Your task to perform on an android device: Search for sushi restaurants on Maps Image 0: 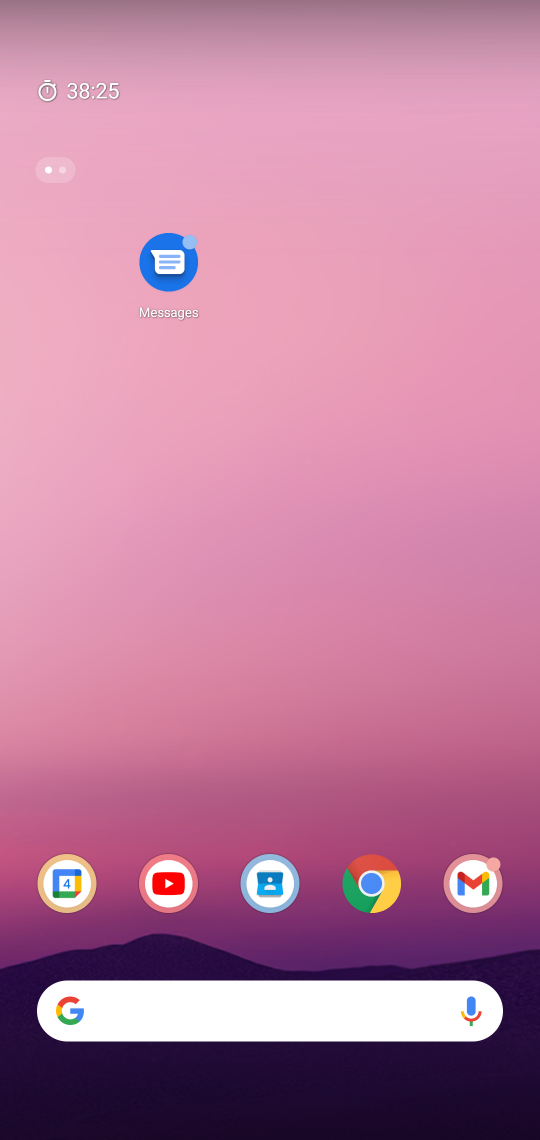
Step 0: drag from (300, 965) to (300, 39)
Your task to perform on an android device: Search for sushi restaurants on Maps Image 1: 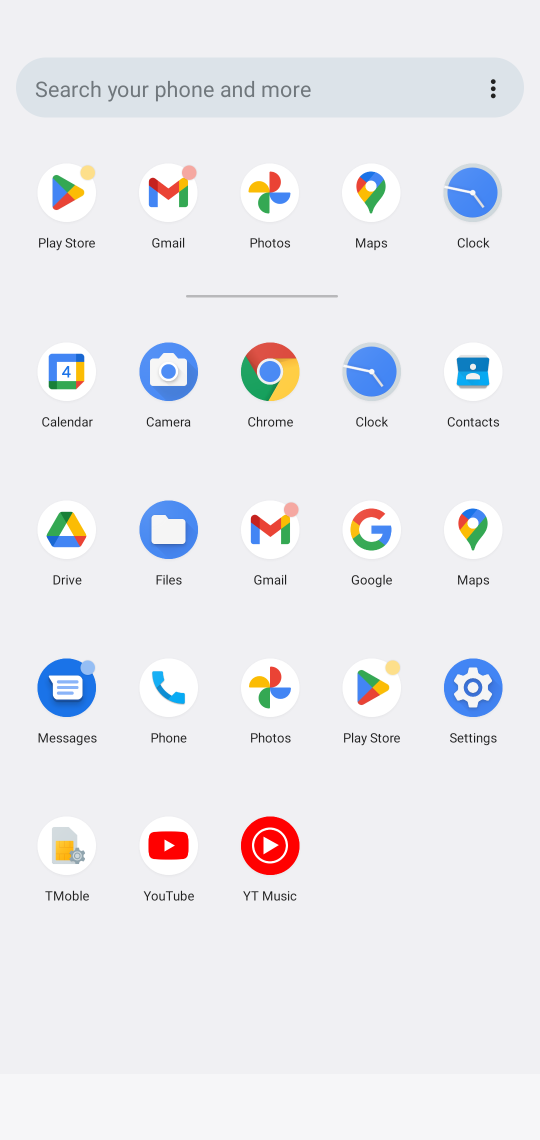
Step 1: click (470, 531)
Your task to perform on an android device: Search for sushi restaurants on Maps Image 2: 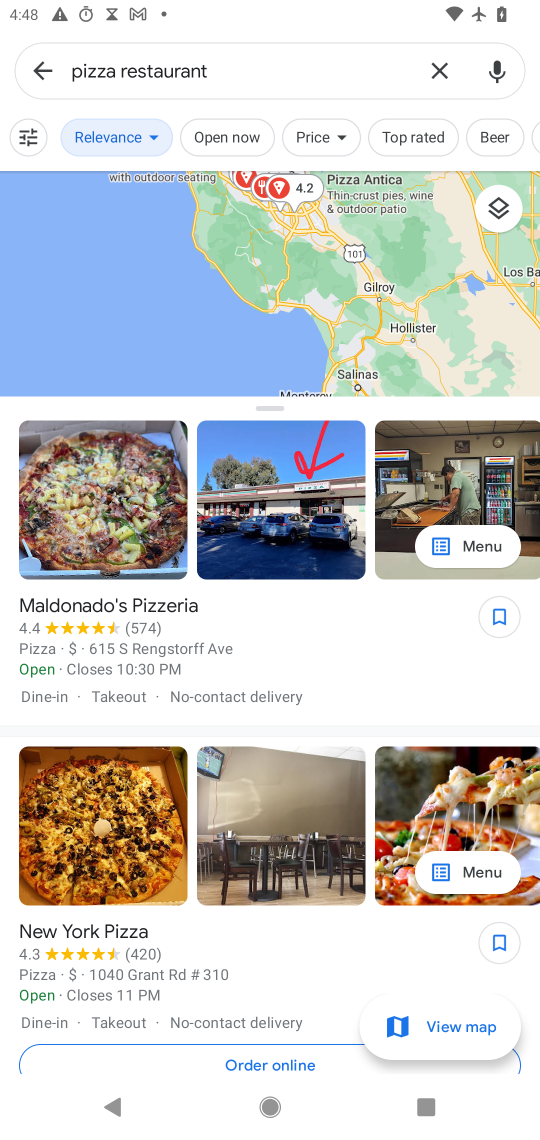
Step 2: click (439, 70)
Your task to perform on an android device: Search for sushi restaurants on Maps Image 3: 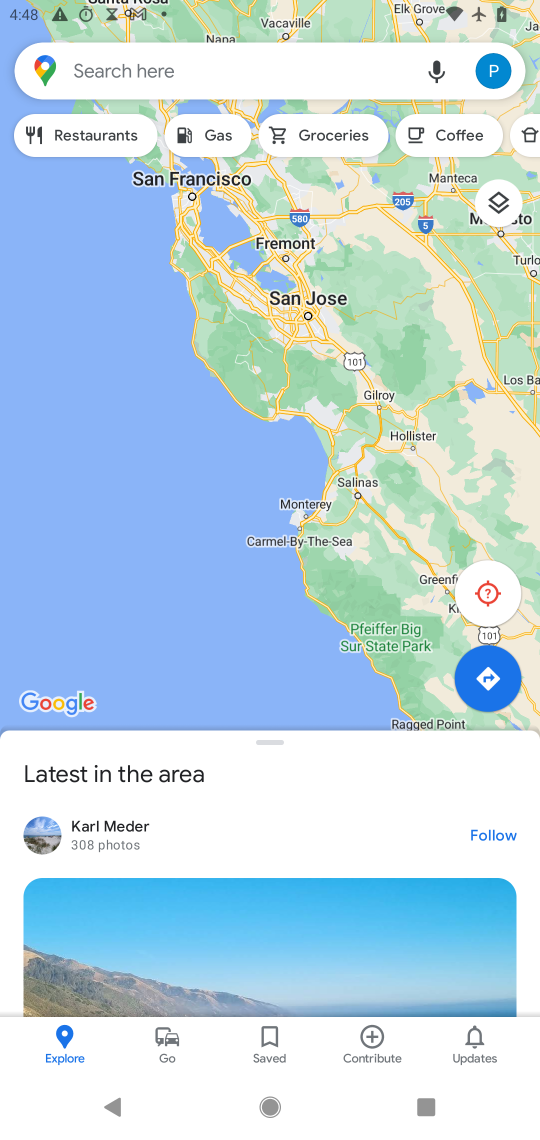
Step 3: click (282, 79)
Your task to perform on an android device: Search for sushi restaurants on Maps Image 4: 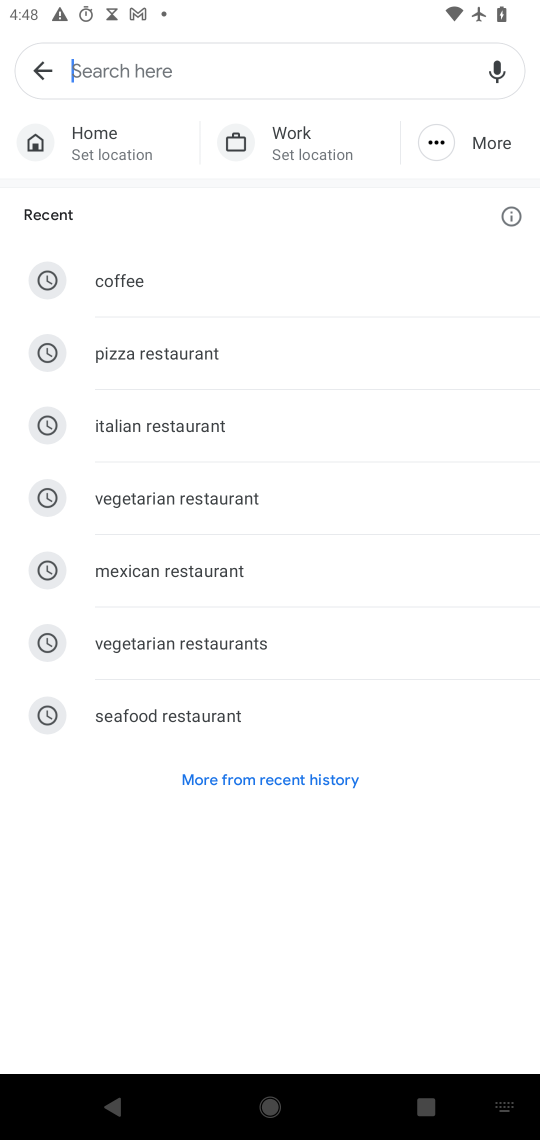
Step 4: type "Sushi"
Your task to perform on an android device: Search for sushi restaurants on Maps Image 5: 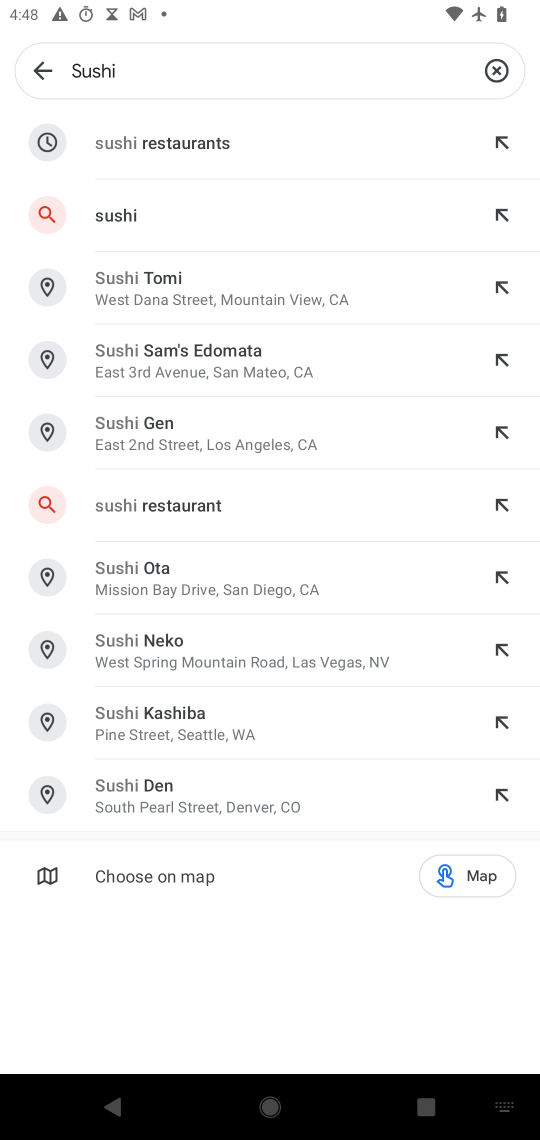
Step 5: click (208, 137)
Your task to perform on an android device: Search for sushi restaurants on Maps Image 6: 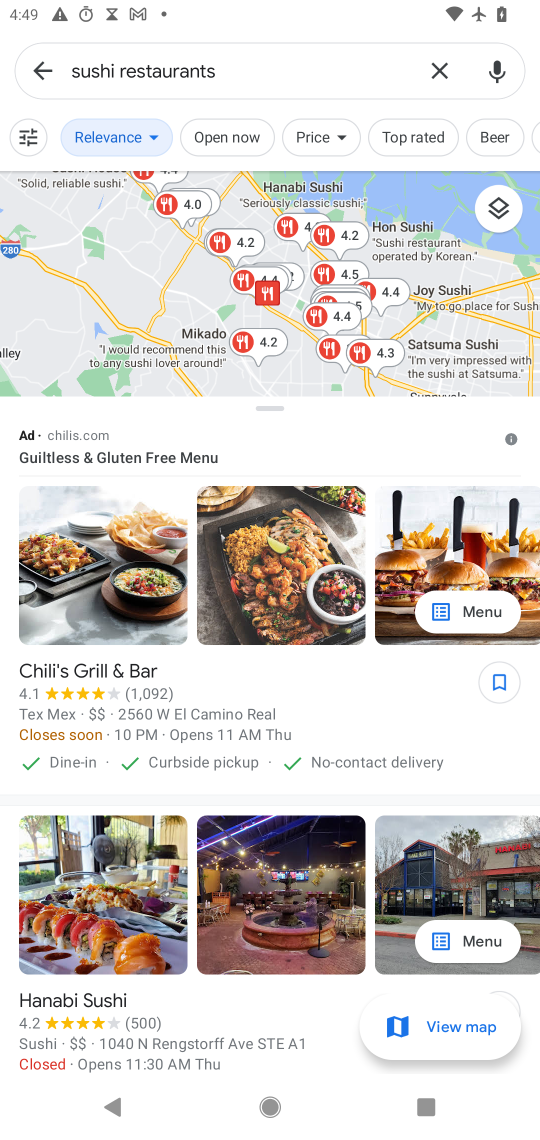
Step 6: task complete